Your task to perform on an android device: toggle pop-ups in chrome Image 0: 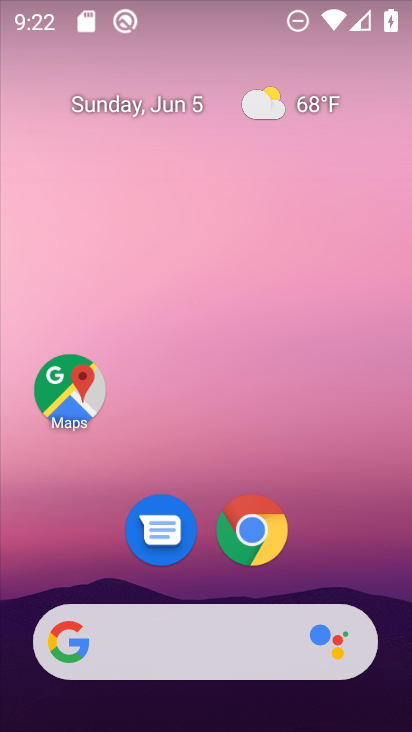
Step 0: click (252, 525)
Your task to perform on an android device: toggle pop-ups in chrome Image 1: 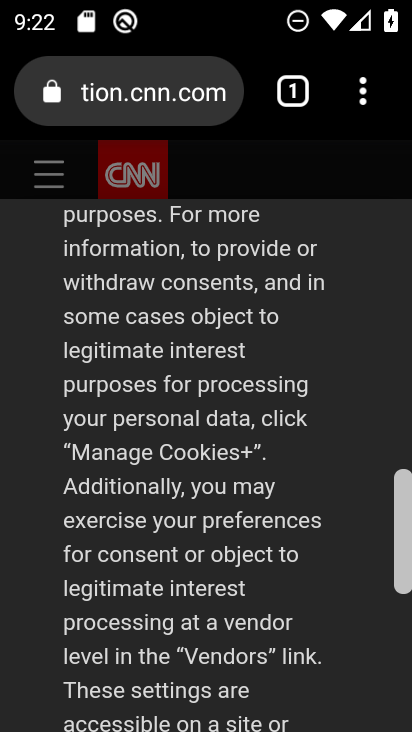
Step 1: click (360, 98)
Your task to perform on an android device: toggle pop-ups in chrome Image 2: 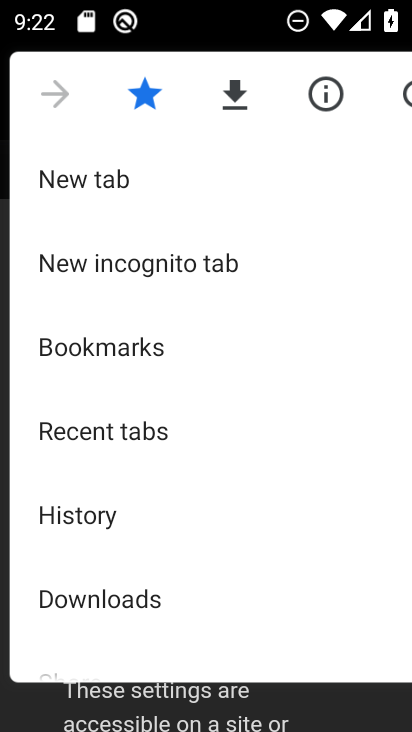
Step 2: drag from (186, 596) to (275, 168)
Your task to perform on an android device: toggle pop-ups in chrome Image 3: 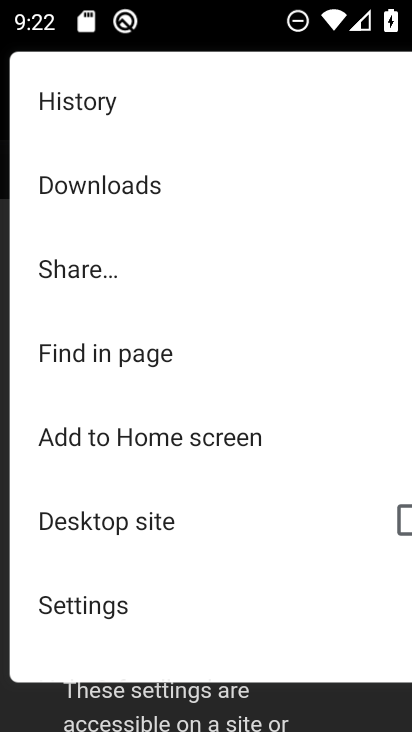
Step 3: click (95, 613)
Your task to perform on an android device: toggle pop-ups in chrome Image 4: 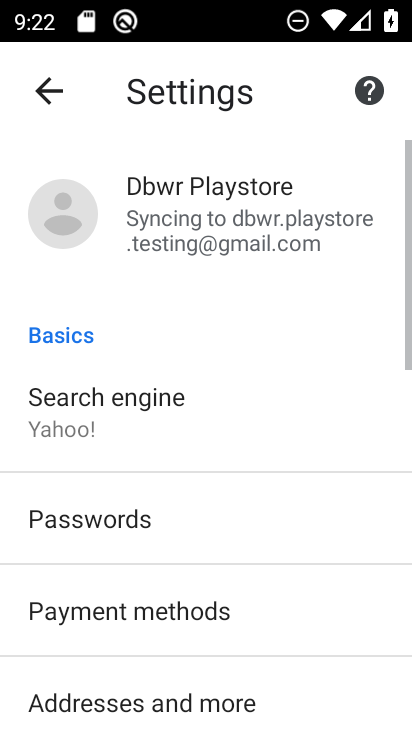
Step 4: drag from (268, 673) to (231, 266)
Your task to perform on an android device: toggle pop-ups in chrome Image 5: 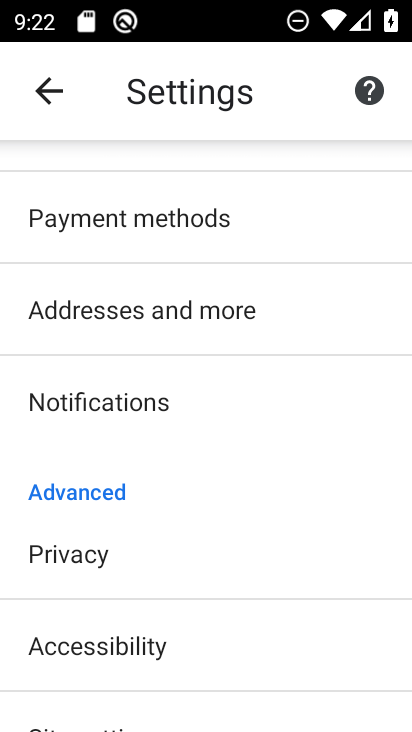
Step 5: drag from (220, 676) to (248, 303)
Your task to perform on an android device: toggle pop-ups in chrome Image 6: 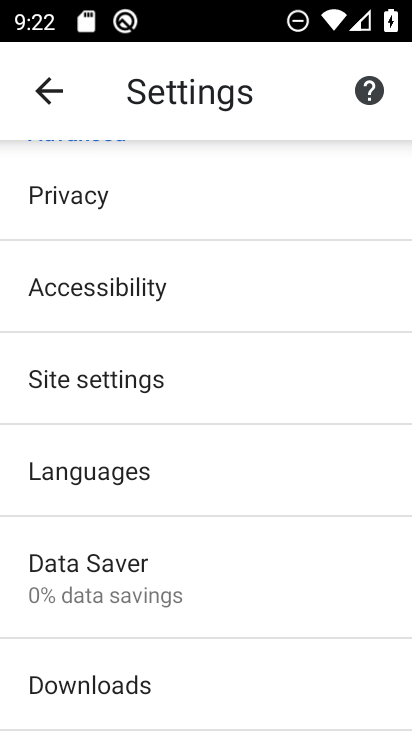
Step 6: click (113, 396)
Your task to perform on an android device: toggle pop-ups in chrome Image 7: 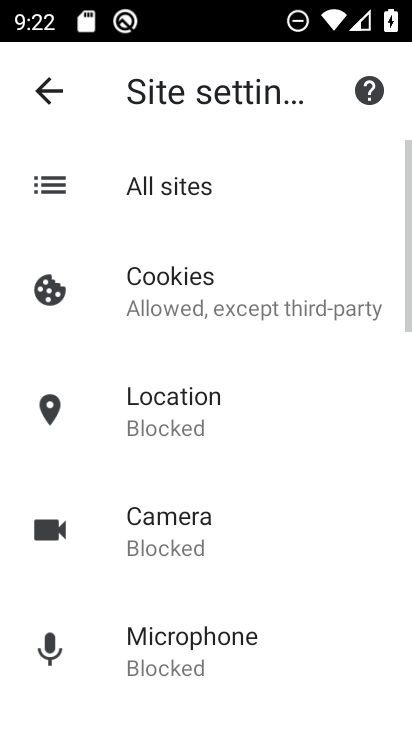
Step 7: drag from (276, 687) to (261, 150)
Your task to perform on an android device: toggle pop-ups in chrome Image 8: 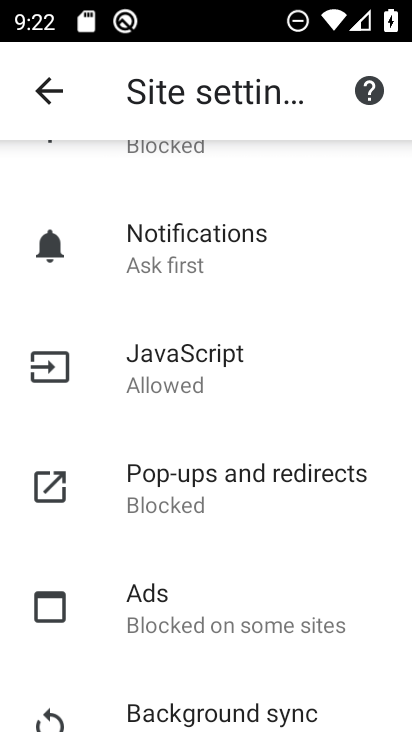
Step 8: click (149, 480)
Your task to perform on an android device: toggle pop-ups in chrome Image 9: 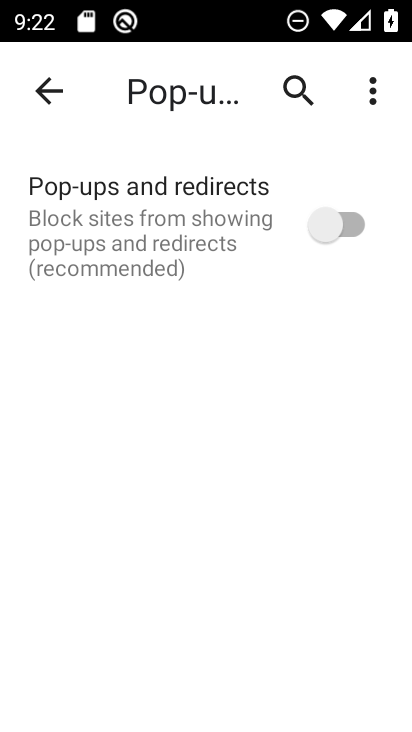
Step 9: click (352, 224)
Your task to perform on an android device: toggle pop-ups in chrome Image 10: 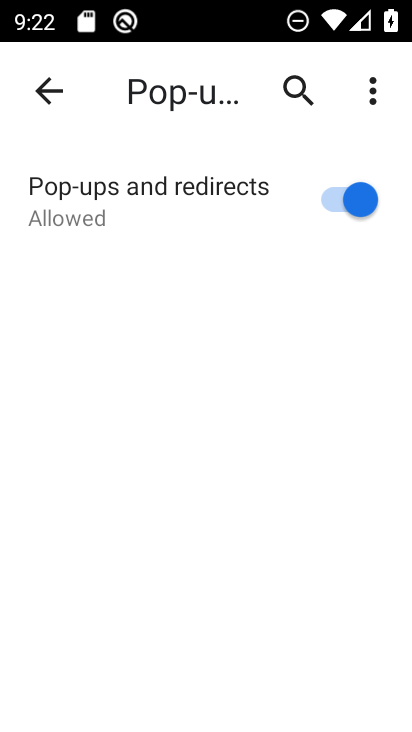
Step 10: task complete